Your task to perform on an android device: Open settings on Google Maps Image 0: 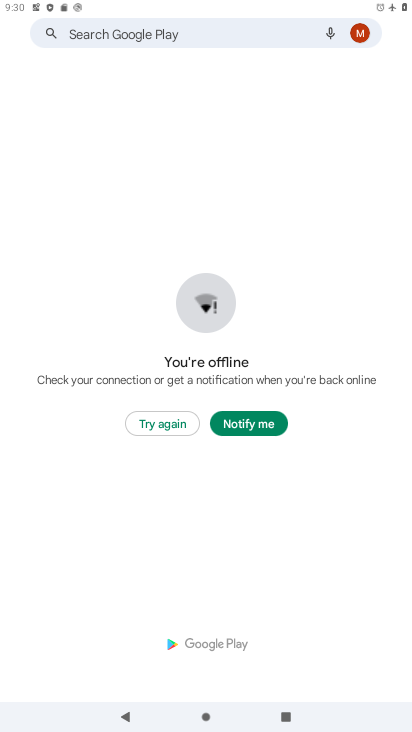
Step 0: press home button
Your task to perform on an android device: Open settings on Google Maps Image 1: 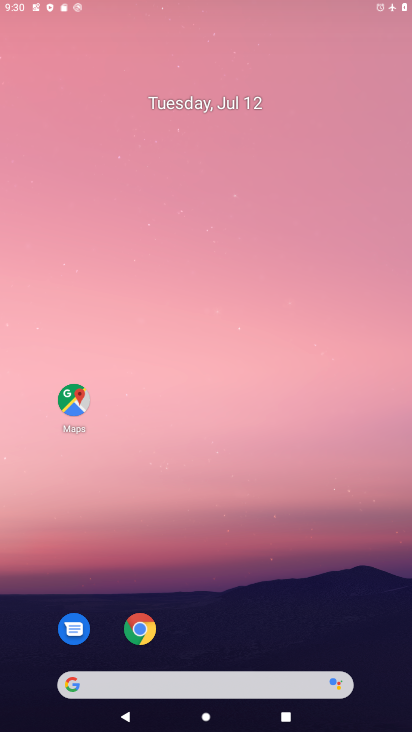
Step 1: drag from (169, 620) to (179, 320)
Your task to perform on an android device: Open settings on Google Maps Image 2: 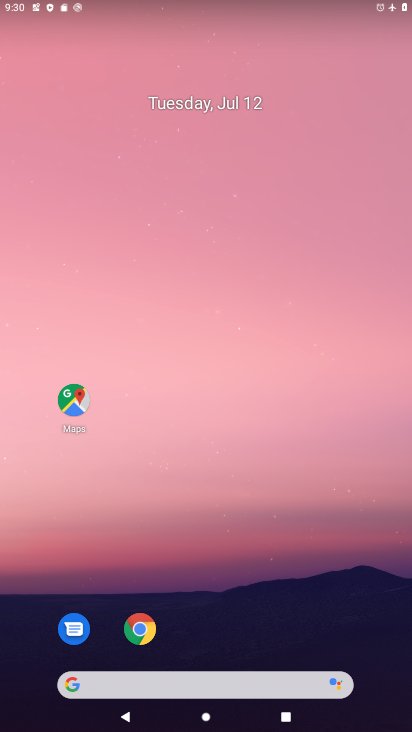
Step 2: drag from (255, 666) to (261, 285)
Your task to perform on an android device: Open settings on Google Maps Image 3: 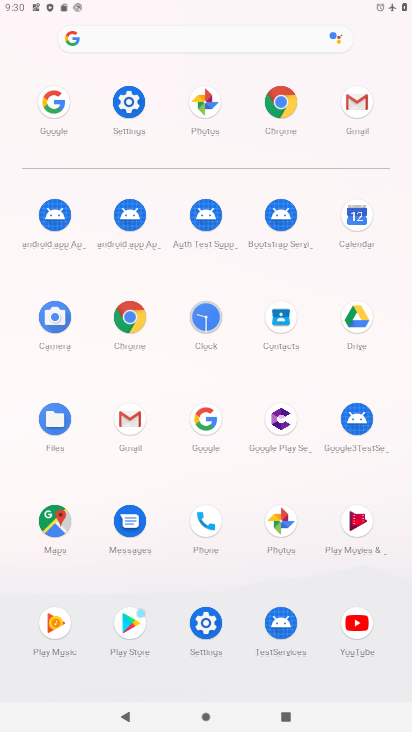
Step 3: click (66, 521)
Your task to perform on an android device: Open settings on Google Maps Image 4: 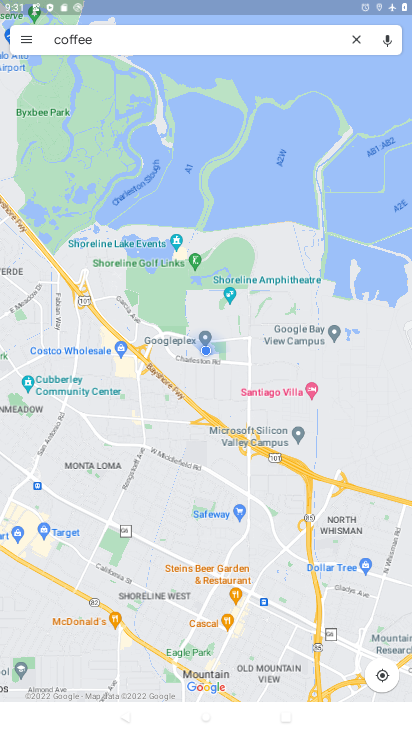
Step 4: click (31, 37)
Your task to perform on an android device: Open settings on Google Maps Image 5: 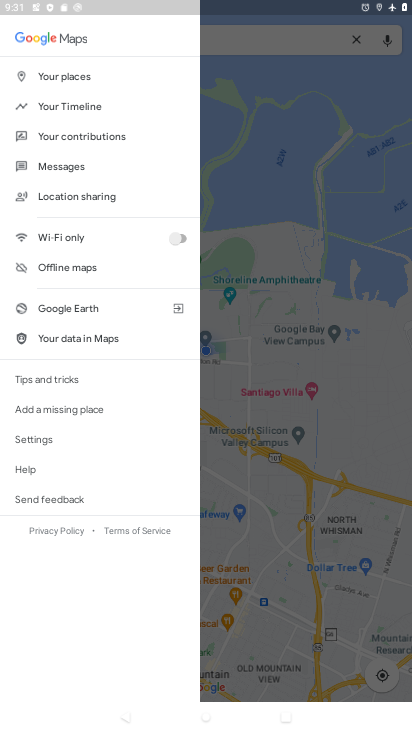
Step 5: click (46, 434)
Your task to perform on an android device: Open settings on Google Maps Image 6: 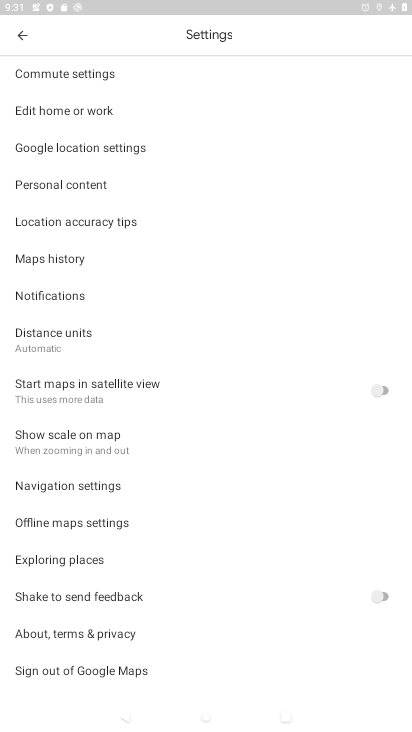
Step 6: task complete